Your task to perform on an android device: open a bookmark in the chrome app Image 0: 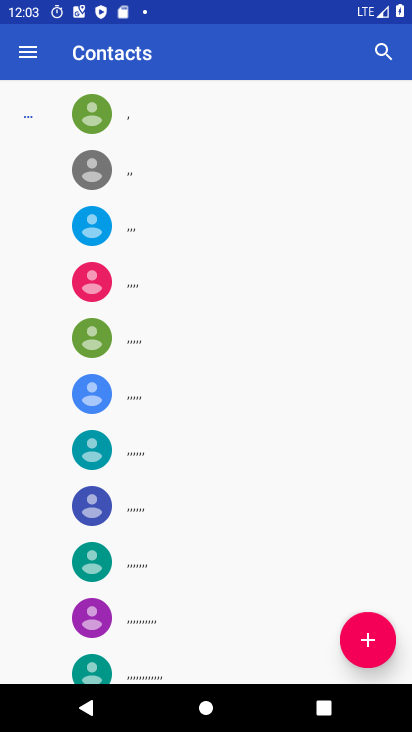
Step 0: press home button
Your task to perform on an android device: open a bookmark in the chrome app Image 1: 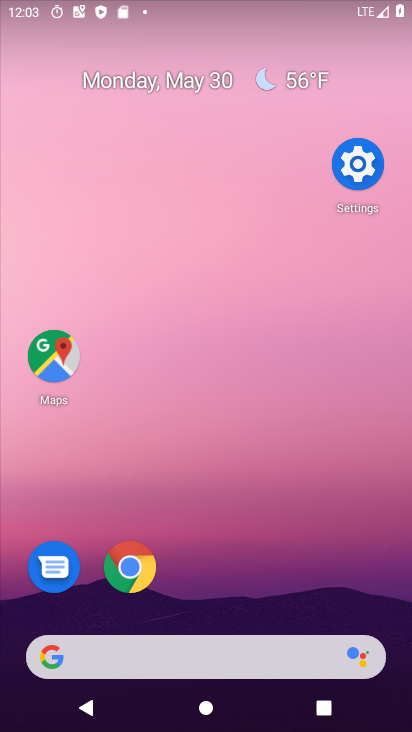
Step 1: drag from (275, 516) to (272, 224)
Your task to perform on an android device: open a bookmark in the chrome app Image 2: 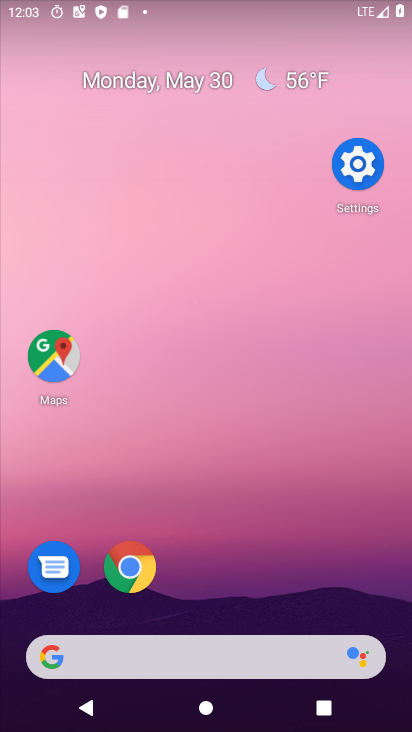
Step 2: click (124, 560)
Your task to perform on an android device: open a bookmark in the chrome app Image 3: 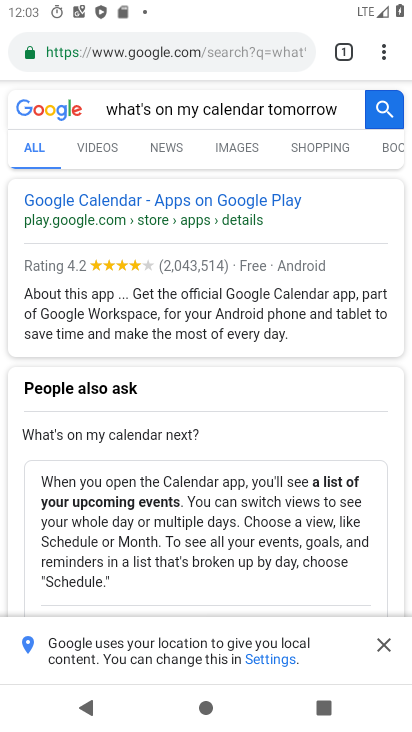
Step 3: task complete